Your task to perform on an android device: What's on my calendar tomorrow? Image 0: 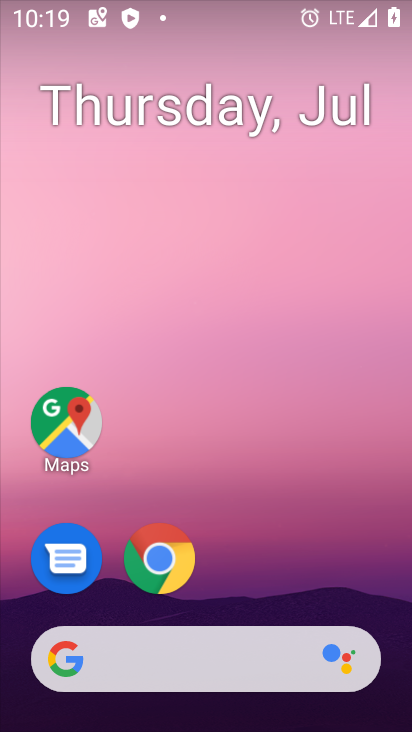
Step 0: drag from (340, 569) to (346, 145)
Your task to perform on an android device: What's on my calendar tomorrow? Image 1: 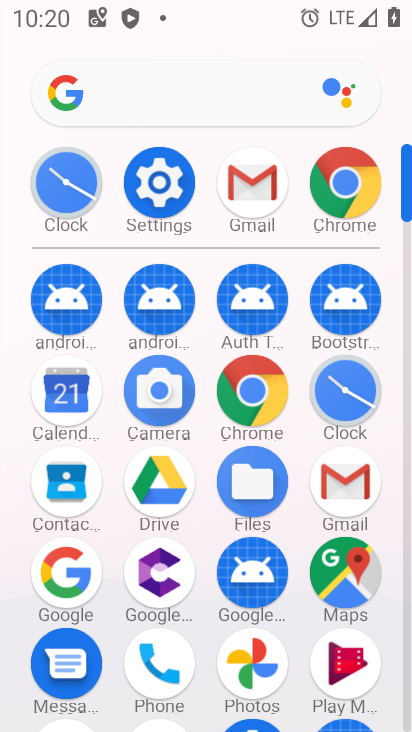
Step 1: click (72, 398)
Your task to perform on an android device: What's on my calendar tomorrow? Image 2: 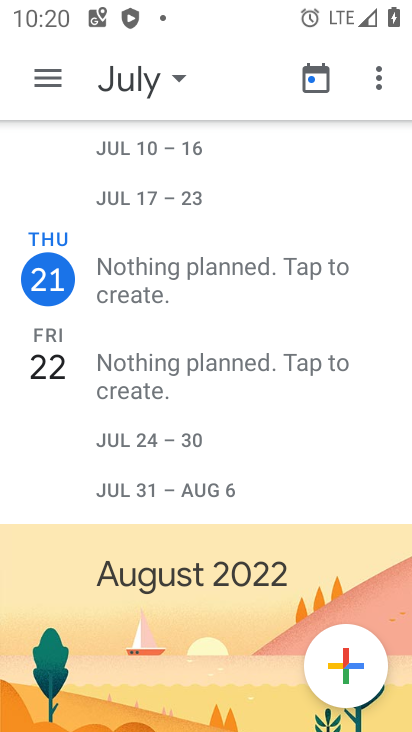
Step 2: click (182, 81)
Your task to perform on an android device: What's on my calendar tomorrow? Image 3: 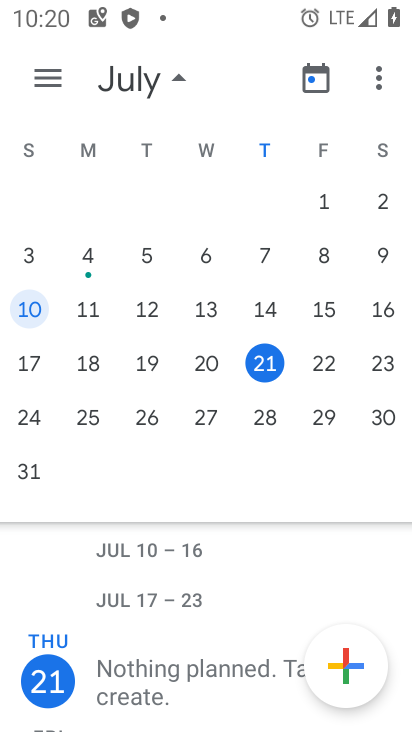
Step 3: click (385, 369)
Your task to perform on an android device: What's on my calendar tomorrow? Image 4: 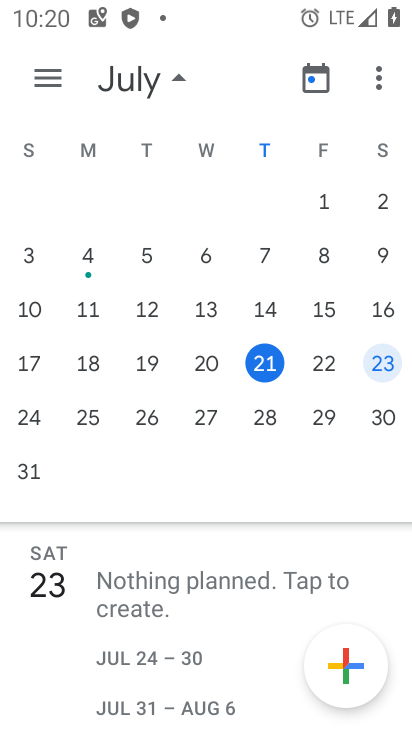
Step 4: task complete